Your task to perform on an android device: Open battery settings Image 0: 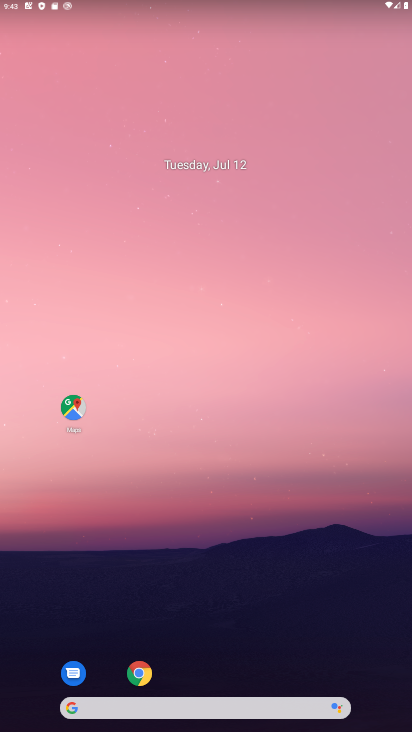
Step 0: drag from (176, 633) to (196, 59)
Your task to perform on an android device: Open battery settings Image 1: 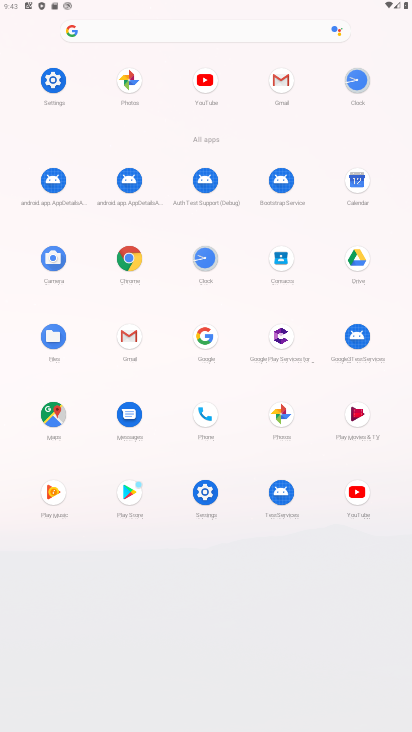
Step 1: click (50, 87)
Your task to perform on an android device: Open battery settings Image 2: 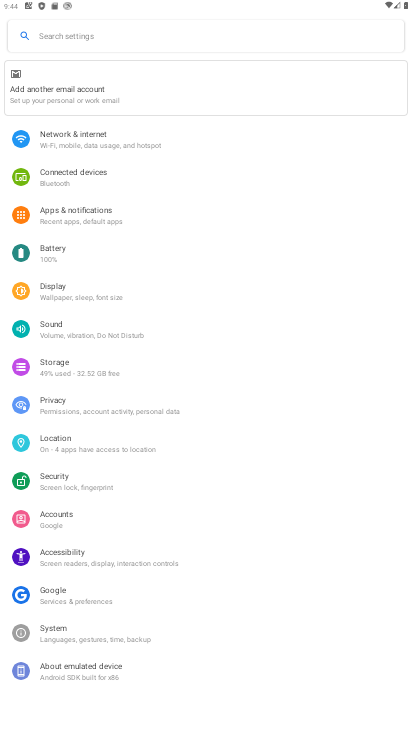
Step 2: click (43, 257)
Your task to perform on an android device: Open battery settings Image 3: 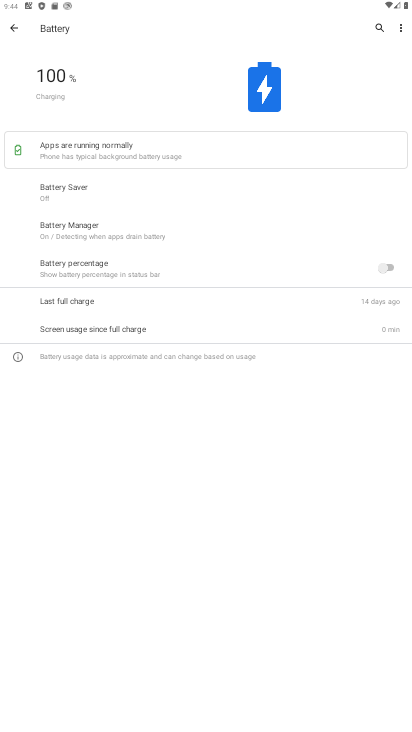
Step 3: task complete